Your task to perform on an android device: check out phone information Image 0: 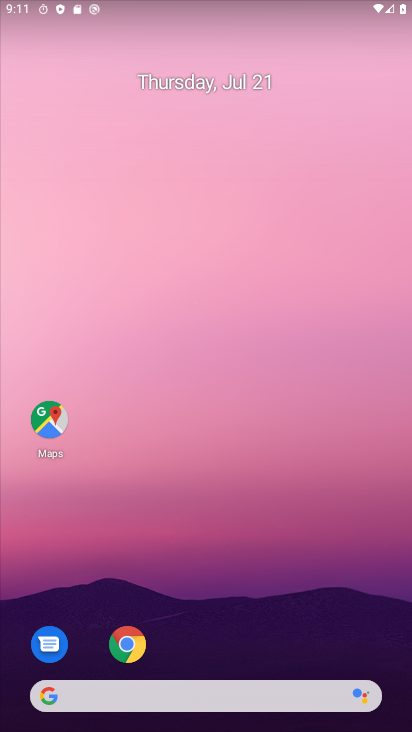
Step 0: drag from (288, 676) to (271, 251)
Your task to perform on an android device: check out phone information Image 1: 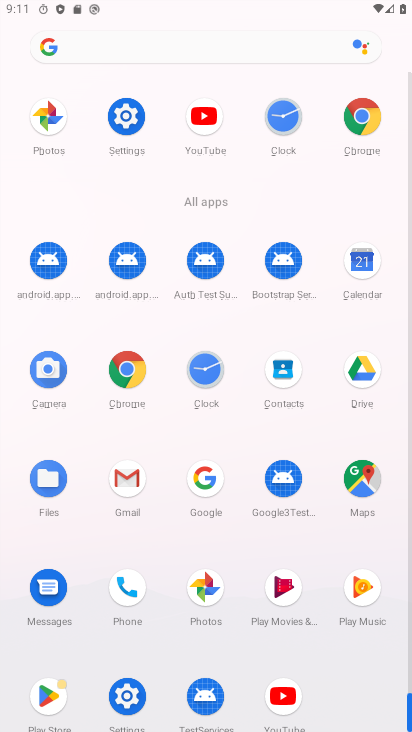
Step 1: click (126, 126)
Your task to perform on an android device: check out phone information Image 2: 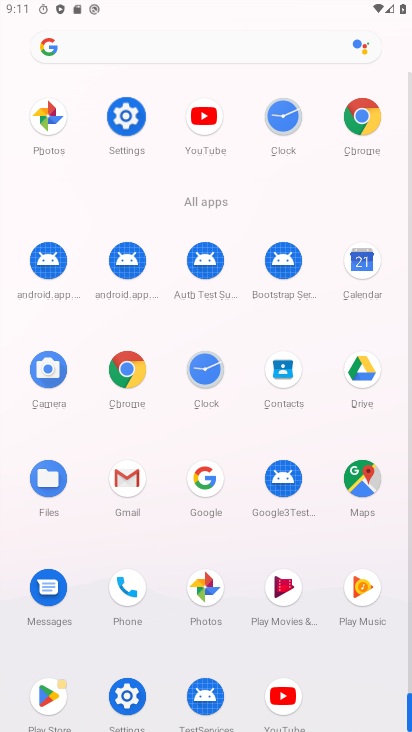
Step 2: click (129, 121)
Your task to perform on an android device: check out phone information Image 3: 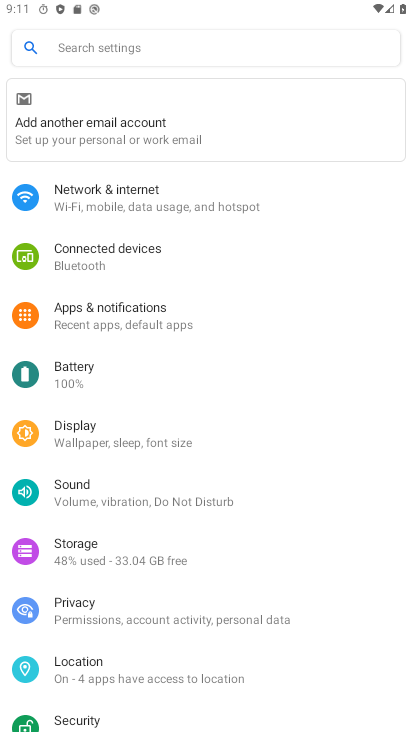
Step 3: drag from (114, 527) to (50, 173)
Your task to perform on an android device: check out phone information Image 4: 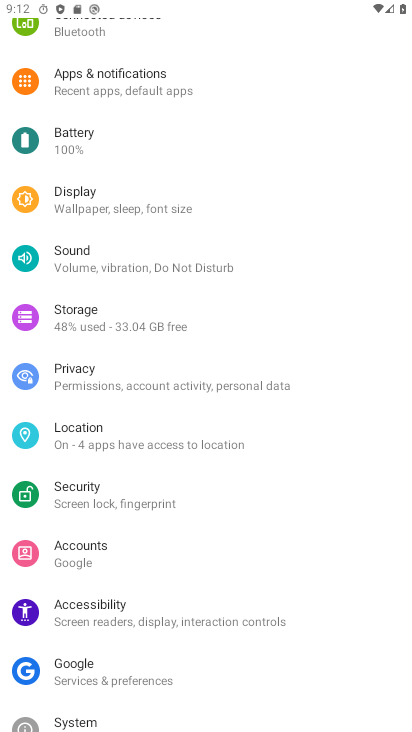
Step 4: drag from (115, 608) to (129, 235)
Your task to perform on an android device: check out phone information Image 5: 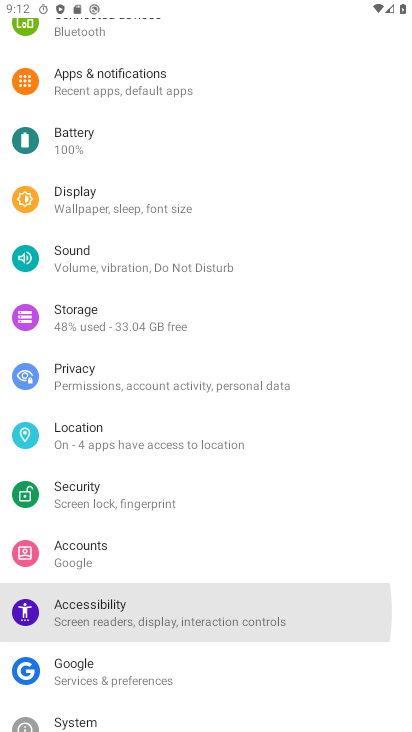
Step 5: drag from (137, 515) to (140, 172)
Your task to perform on an android device: check out phone information Image 6: 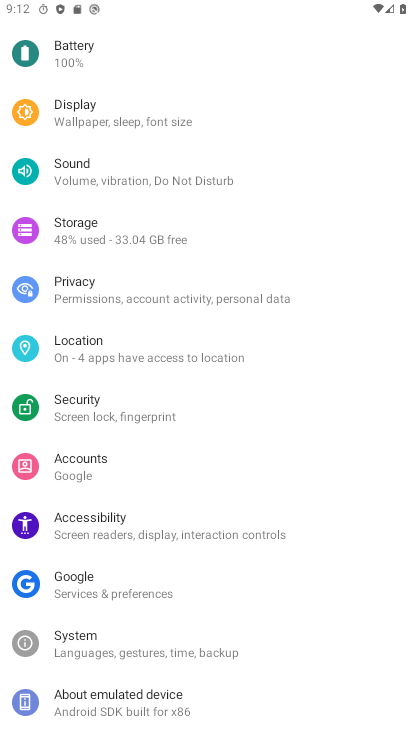
Step 6: click (83, 685)
Your task to perform on an android device: check out phone information Image 7: 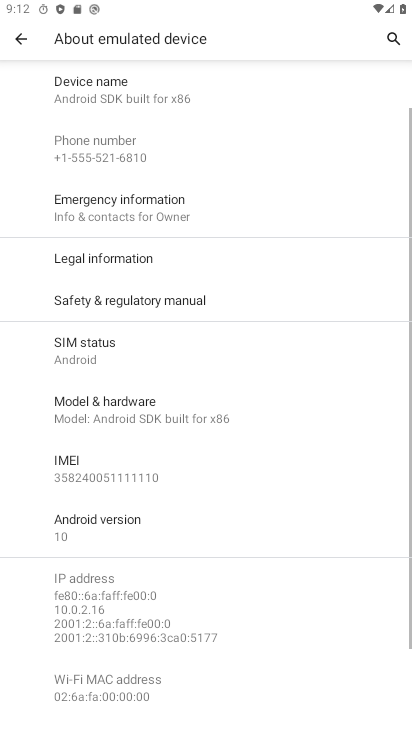
Step 7: drag from (110, 635) to (145, 284)
Your task to perform on an android device: check out phone information Image 8: 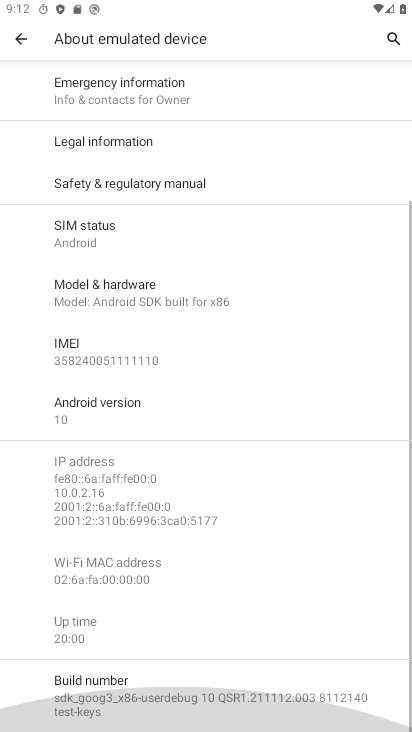
Step 8: drag from (159, 373) to (154, 164)
Your task to perform on an android device: check out phone information Image 9: 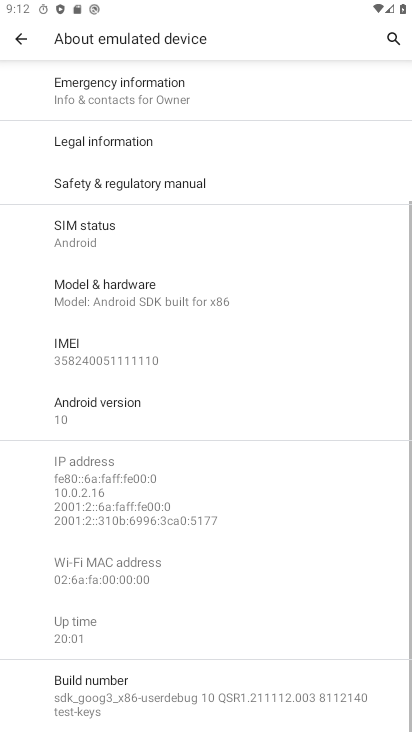
Step 9: click (95, 687)
Your task to perform on an android device: check out phone information Image 10: 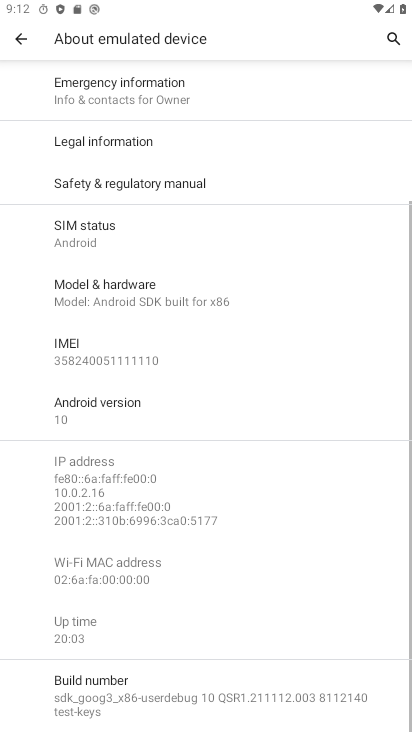
Step 10: task complete